Your task to perform on an android device: View the shopping cart on ebay. Search for usb-c to usb-b on ebay, select the first entry, and add it to the cart. Image 0: 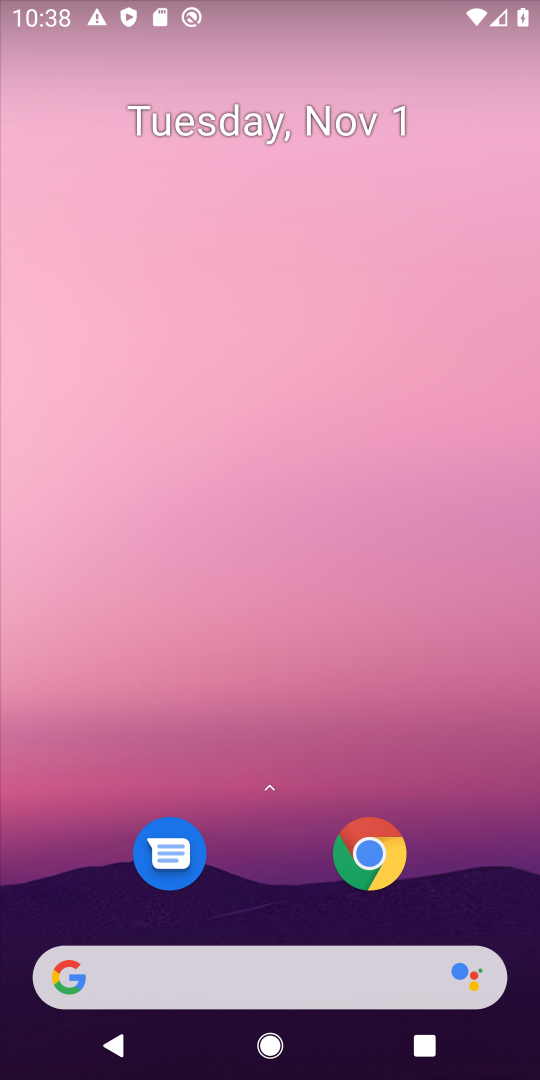
Step 0: click (238, 1001)
Your task to perform on an android device: View the shopping cart on ebay. Search for usb-c to usb-b on ebay, select the first entry, and add it to the cart. Image 1: 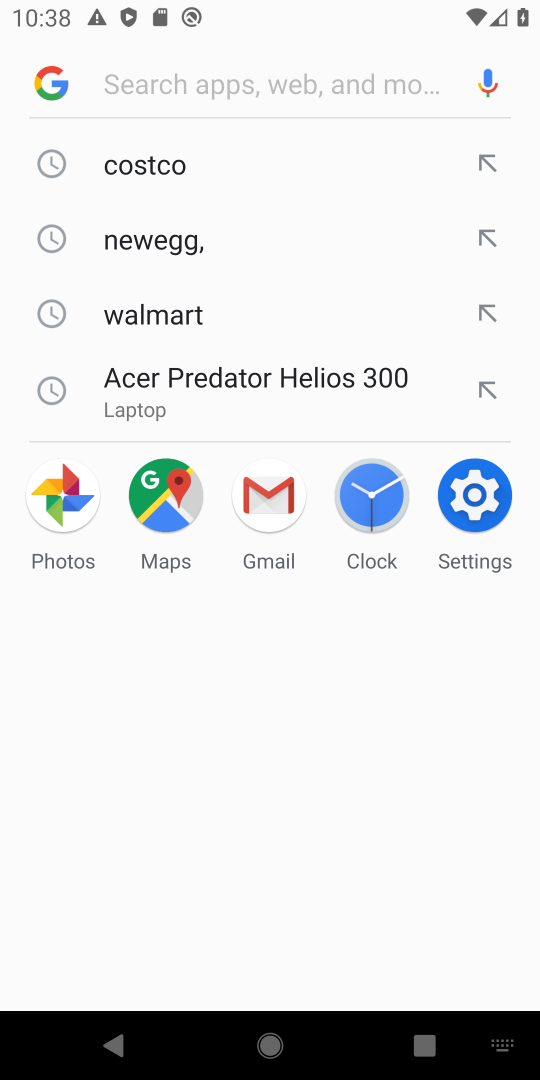
Step 1: type "ebay"
Your task to perform on an android device: View the shopping cart on ebay. Search for usb-c to usb-b on ebay, select the first entry, and add it to the cart. Image 2: 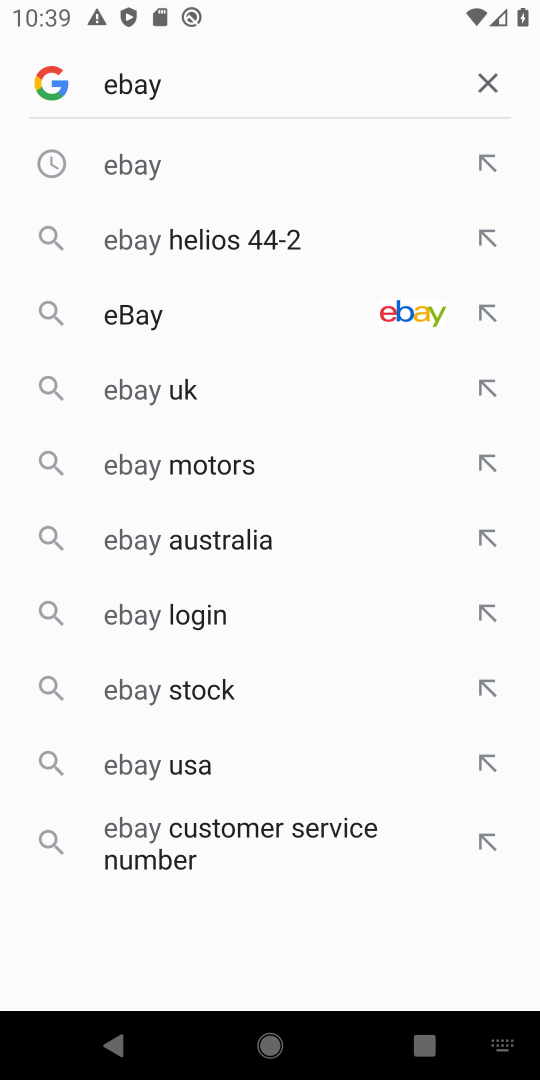
Step 2: click (303, 163)
Your task to perform on an android device: View the shopping cart on ebay. Search for usb-c to usb-b on ebay, select the first entry, and add it to the cart. Image 3: 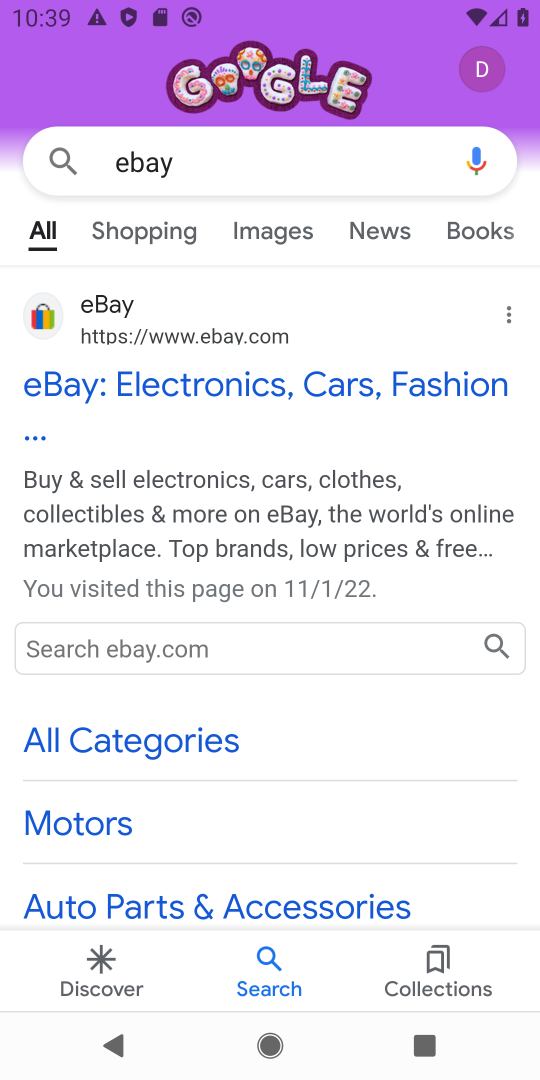
Step 3: click (69, 366)
Your task to perform on an android device: View the shopping cart on ebay. Search for usb-c to usb-b on ebay, select the first entry, and add it to the cart. Image 4: 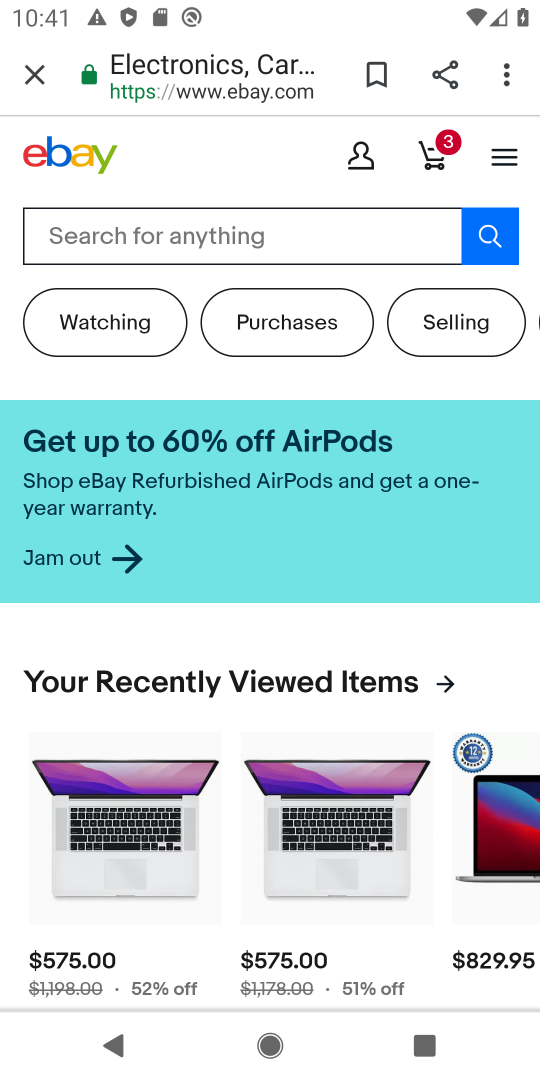
Step 4: task complete